Your task to perform on an android device: toggle priority inbox in the gmail app Image 0: 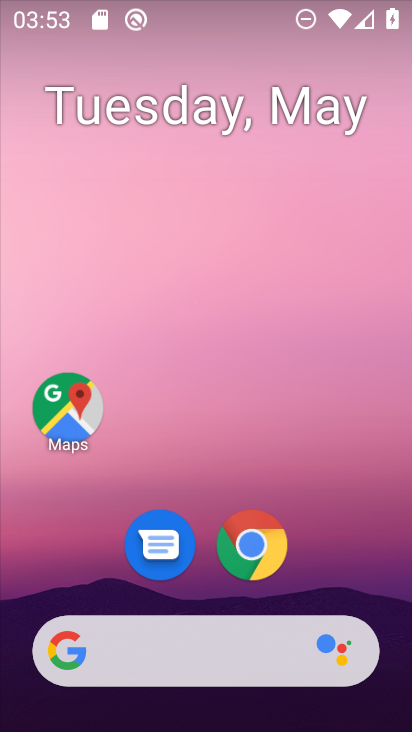
Step 0: drag from (392, 613) to (323, 84)
Your task to perform on an android device: toggle priority inbox in the gmail app Image 1: 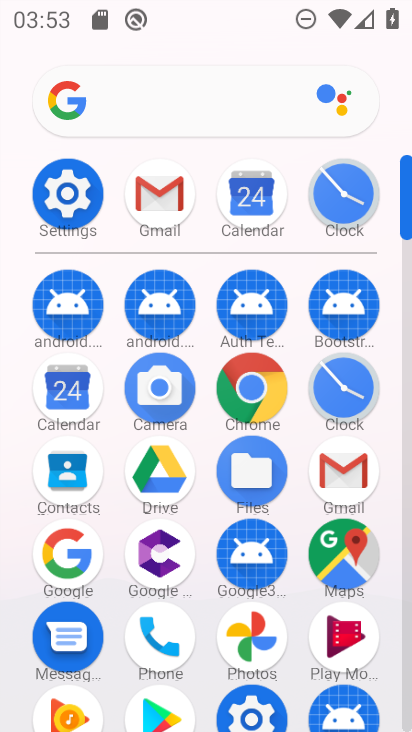
Step 1: click (406, 702)
Your task to perform on an android device: toggle priority inbox in the gmail app Image 2: 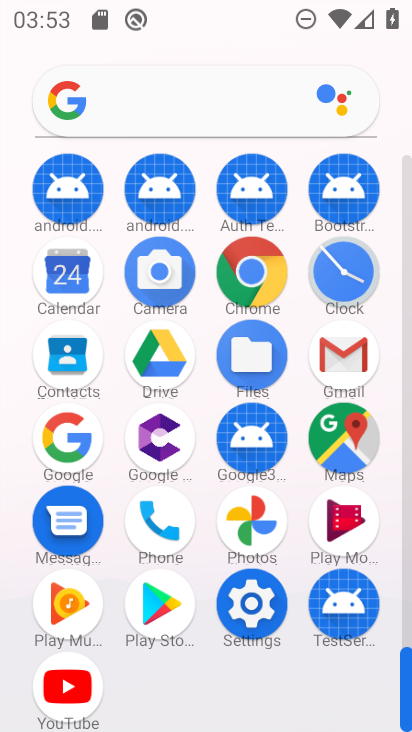
Step 2: click (339, 353)
Your task to perform on an android device: toggle priority inbox in the gmail app Image 3: 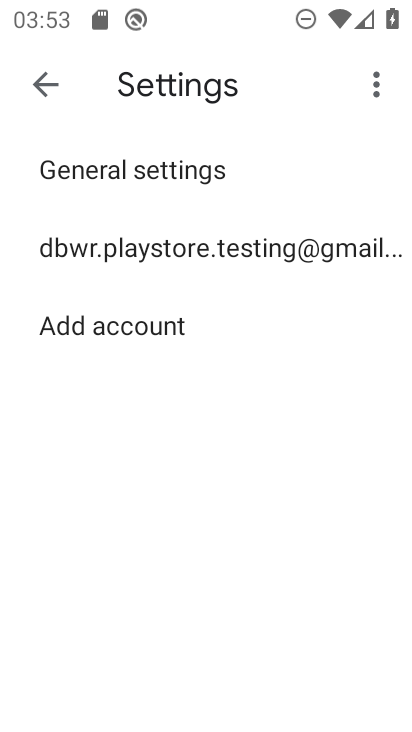
Step 3: click (154, 248)
Your task to perform on an android device: toggle priority inbox in the gmail app Image 4: 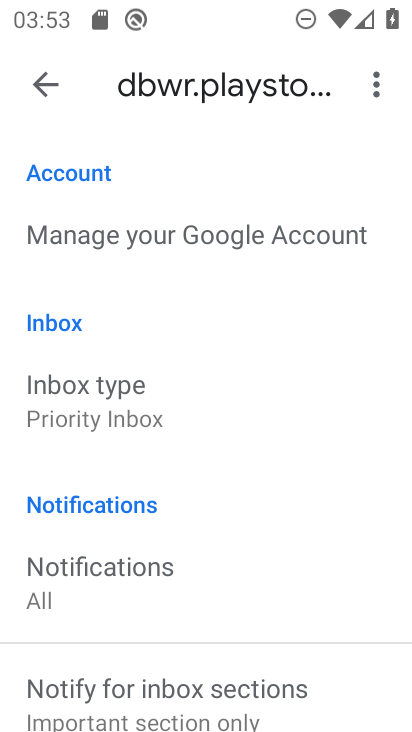
Step 4: click (101, 414)
Your task to perform on an android device: toggle priority inbox in the gmail app Image 5: 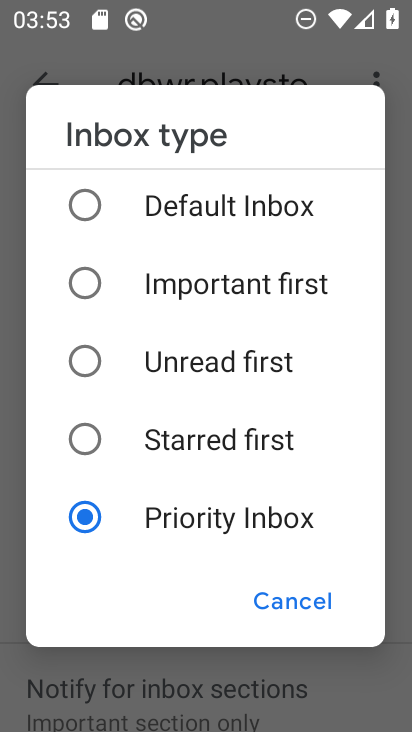
Step 5: click (80, 213)
Your task to perform on an android device: toggle priority inbox in the gmail app Image 6: 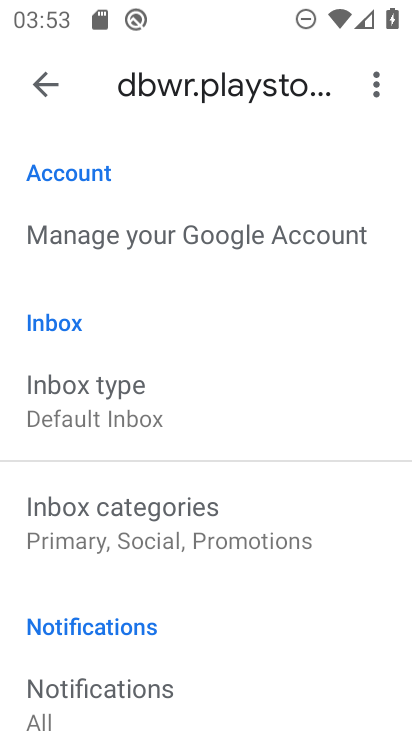
Step 6: task complete